Your task to perform on an android device: snooze an email in the gmail app Image 0: 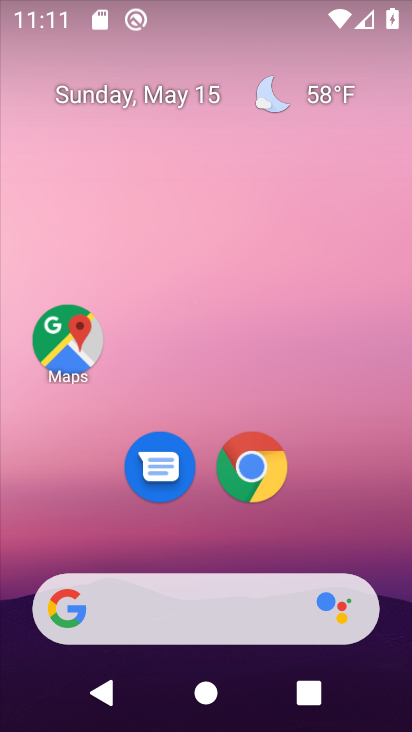
Step 0: drag from (216, 525) to (225, 163)
Your task to perform on an android device: snooze an email in the gmail app Image 1: 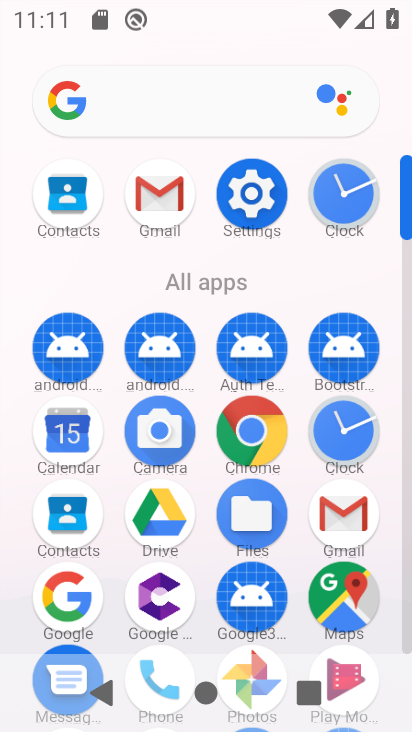
Step 1: click (160, 187)
Your task to perform on an android device: snooze an email in the gmail app Image 2: 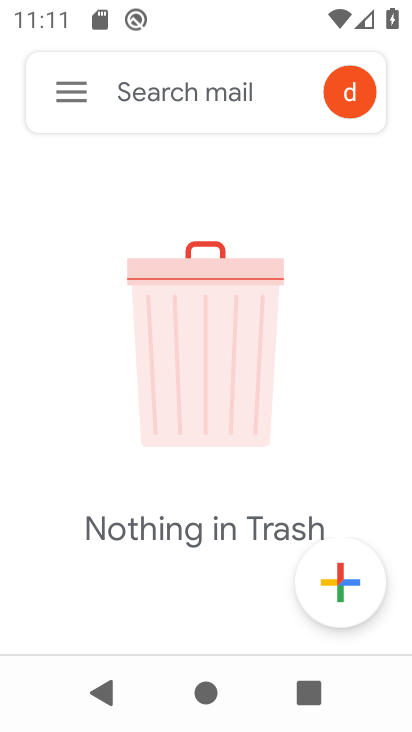
Step 2: click (61, 88)
Your task to perform on an android device: snooze an email in the gmail app Image 3: 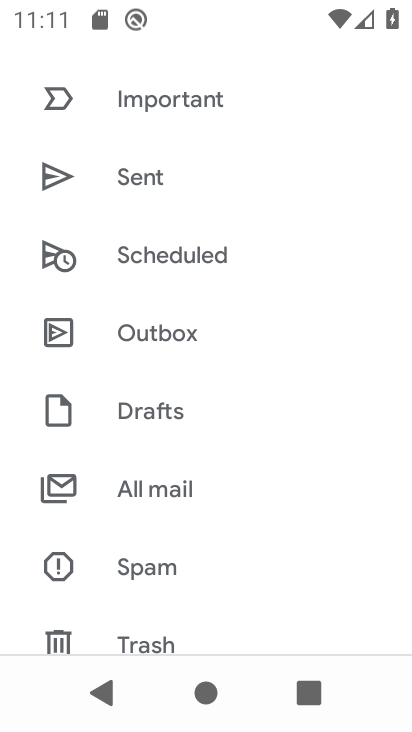
Step 3: click (134, 485)
Your task to perform on an android device: snooze an email in the gmail app Image 4: 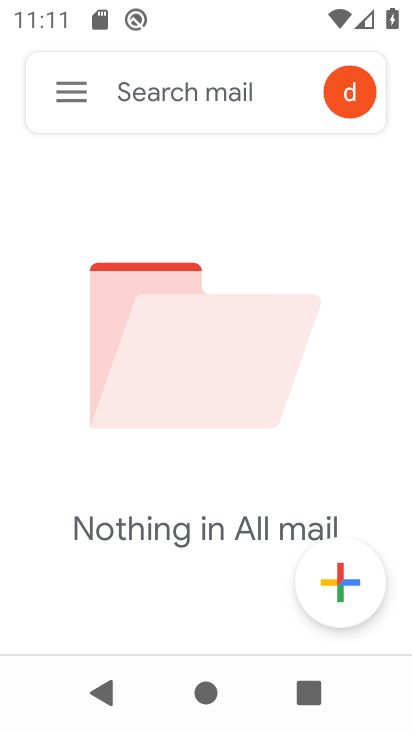
Step 4: task complete